Your task to perform on an android device: Turn on the flashlight Image 0: 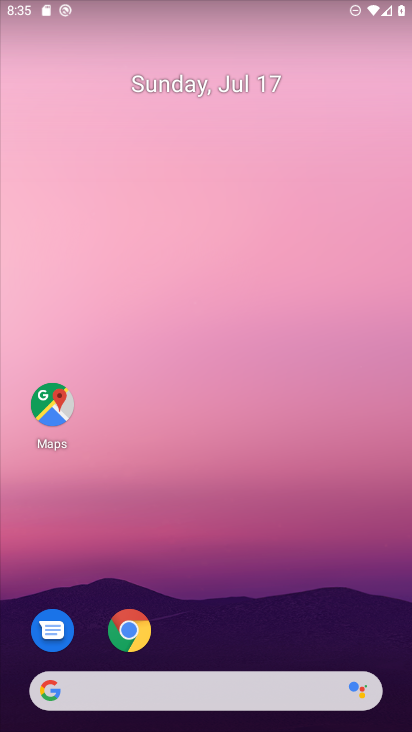
Step 0: drag from (365, 622) to (182, 49)
Your task to perform on an android device: Turn on the flashlight Image 1: 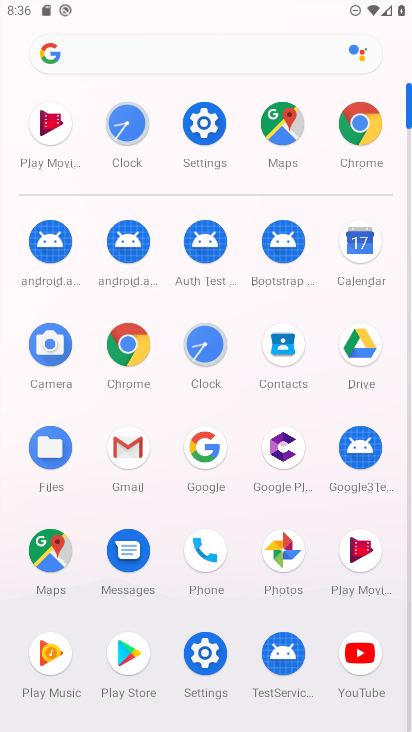
Step 1: click (208, 674)
Your task to perform on an android device: Turn on the flashlight Image 2: 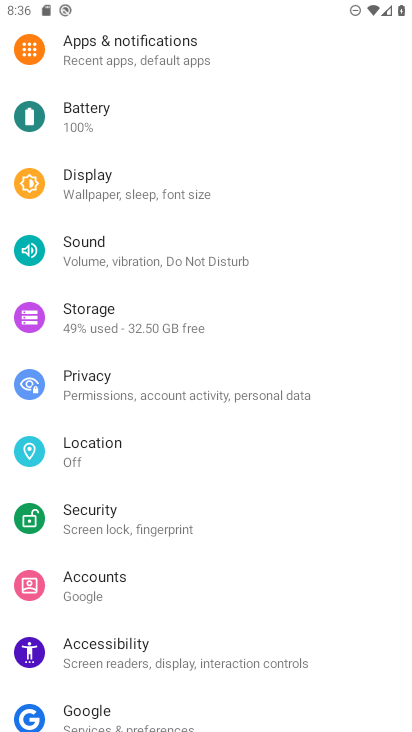
Step 2: task complete